Your task to perform on an android device: turn smart compose on in the gmail app Image 0: 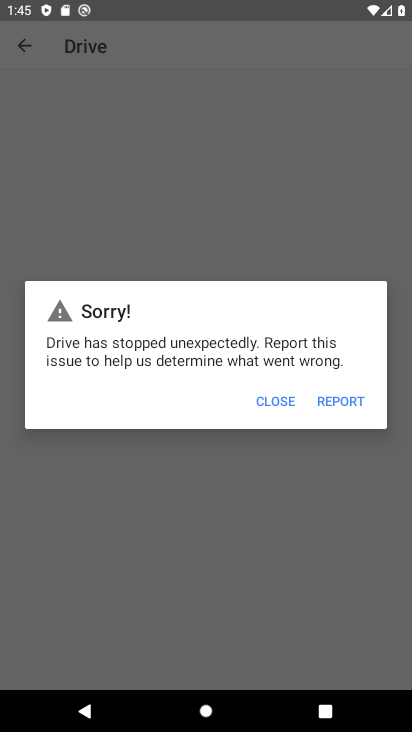
Step 0: press home button
Your task to perform on an android device: turn smart compose on in the gmail app Image 1: 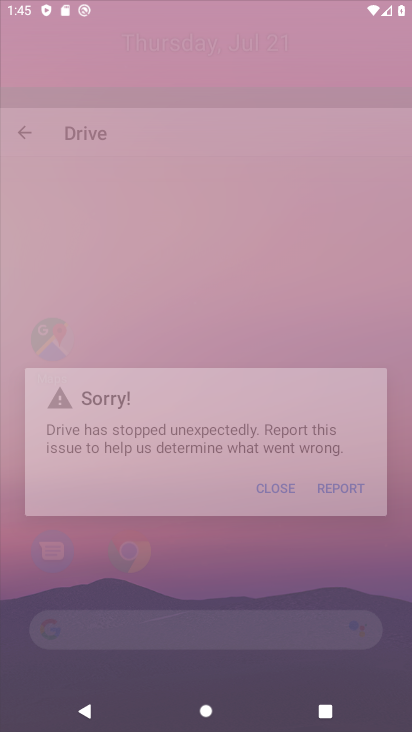
Step 1: drag from (278, 627) to (386, 116)
Your task to perform on an android device: turn smart compose on in the gmail app Image 2: 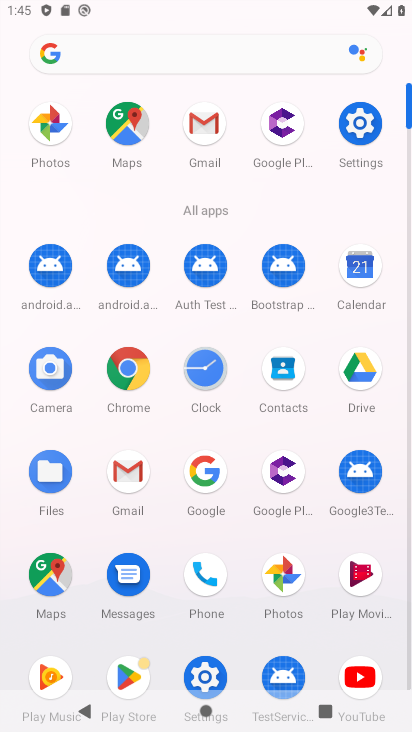
Step 2: click (132, 469)
Your task to perform on an android device: turn smart compose on in the gmail app Image 3: 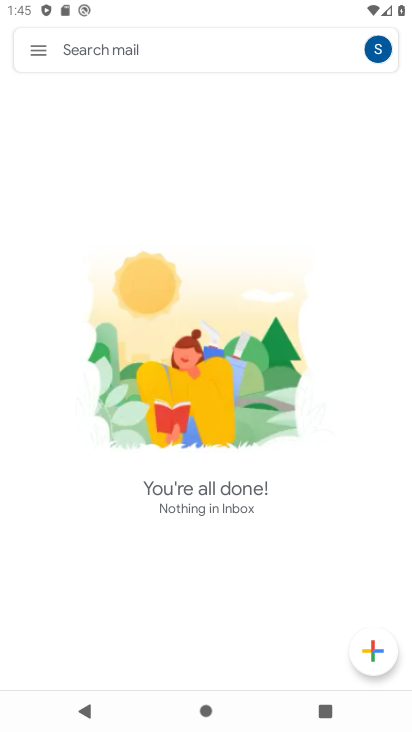
Step 3: drag from (295, 579) to (287, 278)
Your task to perform on an android device: turn smart compose on in the gmail app Image 4: 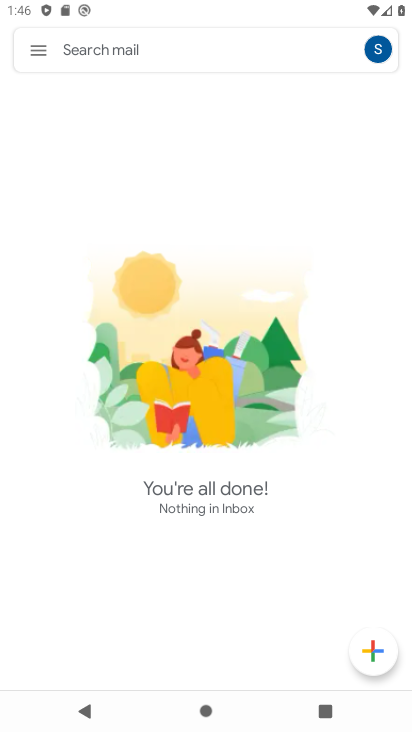
Step 4: click (33, 45)
Your task to perform on an android device: turn smart compose on in the gmail app Image 5: 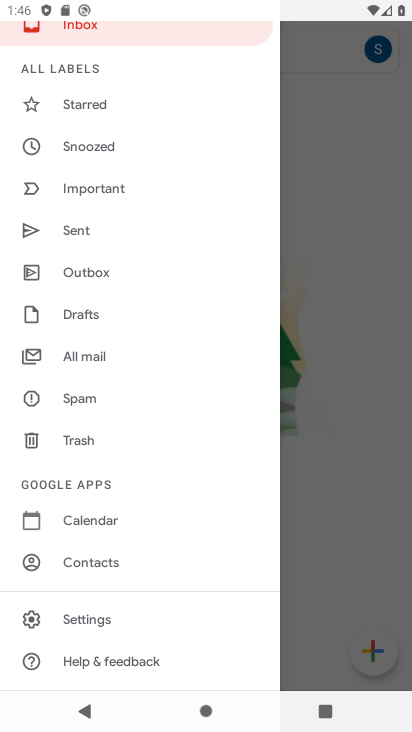
Step 5: click (79, 617)
Your task to perform on an android device: turn smart compose on in the gmail app Image 6: 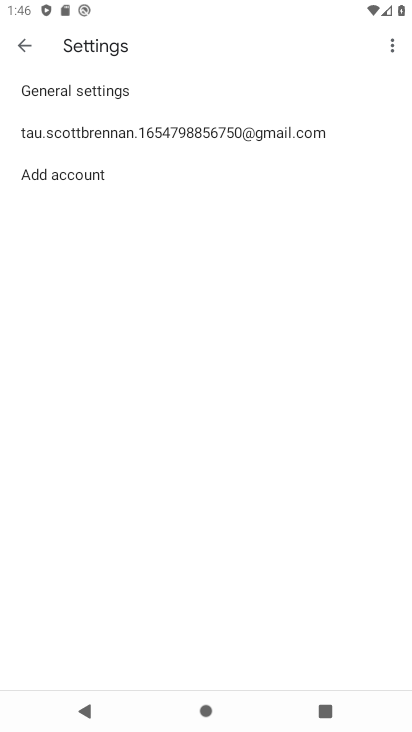
Step 6: click (150, 133)
Your task to perform on an android device: turn smart compose on in the gmail app Image 7: 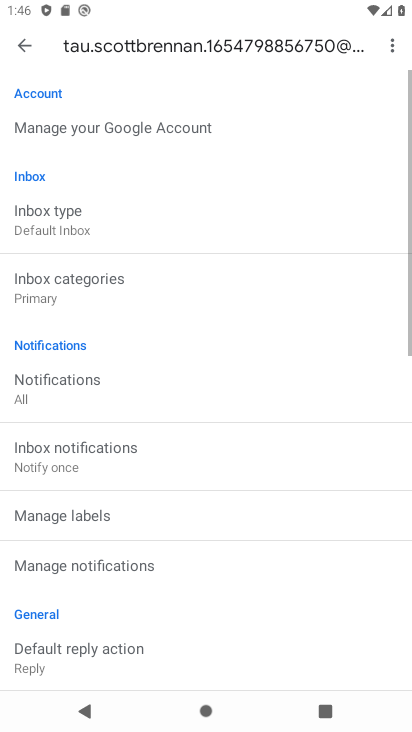
Step 7: drag from (167, 528) to (202, 171)
Your task to perform on an android device: turn smart compose on in the gmail app Image 8: 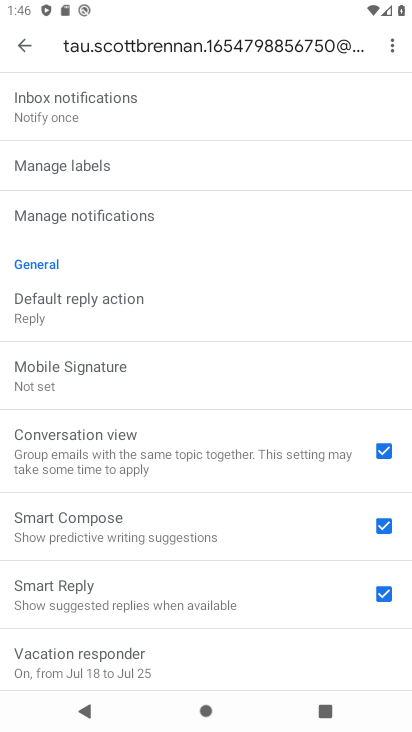
Step 8: click (180, 514)
Your task to perform on an android device: turn smart compose on in the gmail app Image 9: 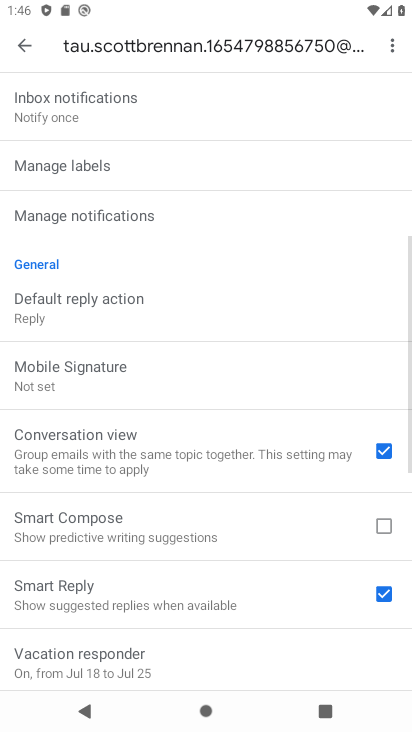
Step 9: drag from (293, 638) to (301, 349)
Your task to perform on an android device: turn smart compose on in the gmail app Image 10: 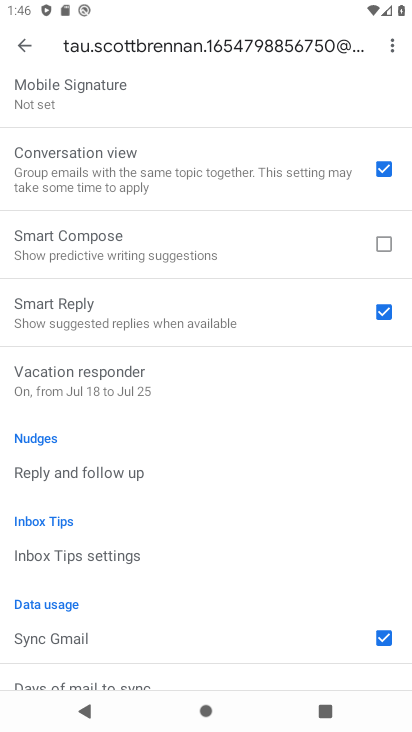
Step 10: click (378, 256)
Your task to perform on an android device: turn smart compose on in the gmail app Image 11: 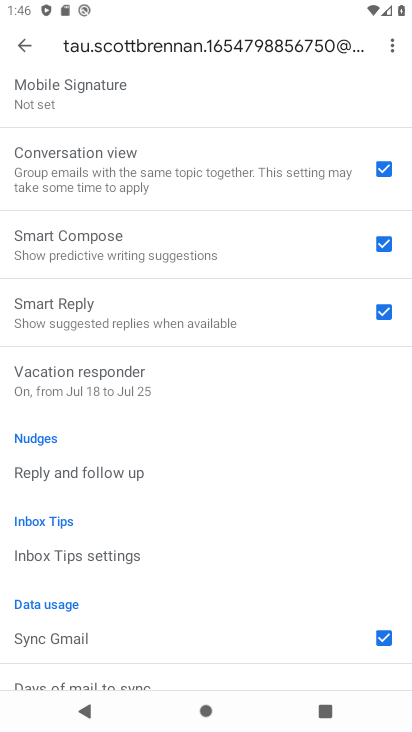
Step 11: task complete